Your task to perform on an android device: What is the recent news? Image 0: 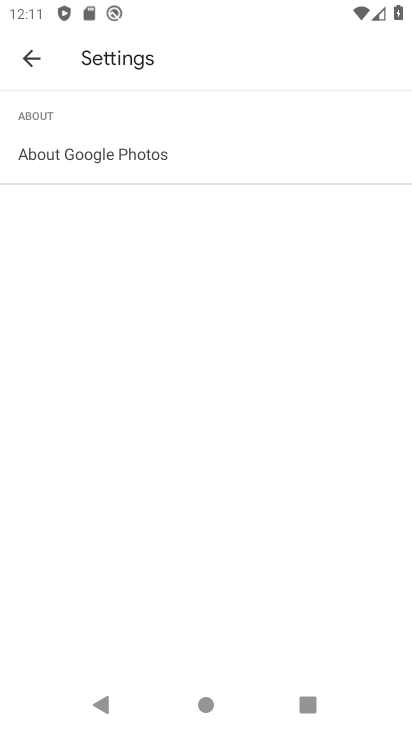
Step 0: press home button
Your task to perform on an android device: What is the recent news? Image 1: 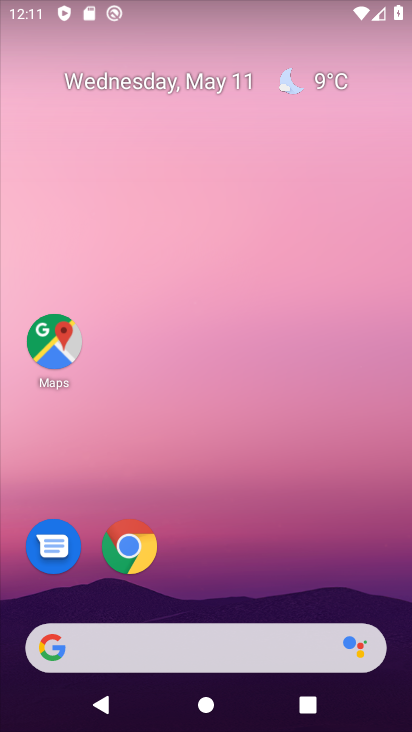
Step 1: drag from (283, 656) to (294, 80)
Your task to perform on an android device: What is the recent news? Image 2: 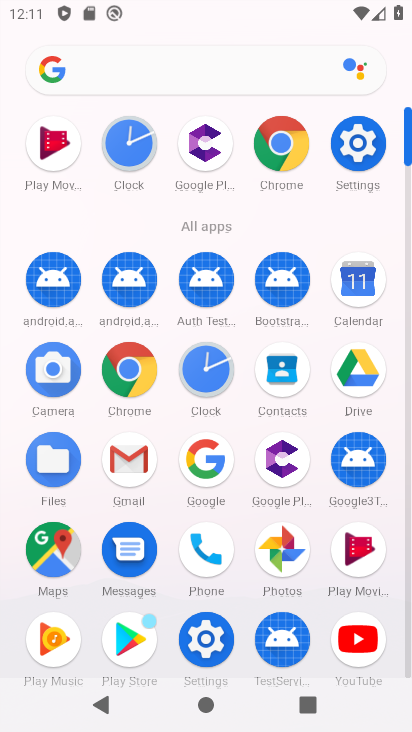
Step 2: click (131, 376)
Your task to perform on an android device: What is the recent news? Image 3: 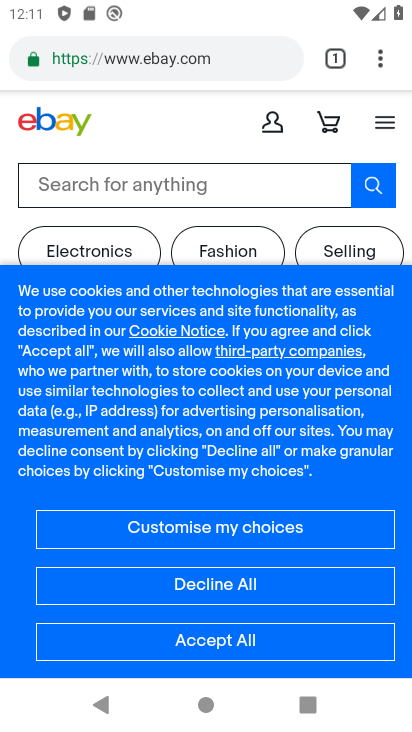
Step 3: click (285, 68)
Your task to perform on an android device: What is the recent news? Image 4: 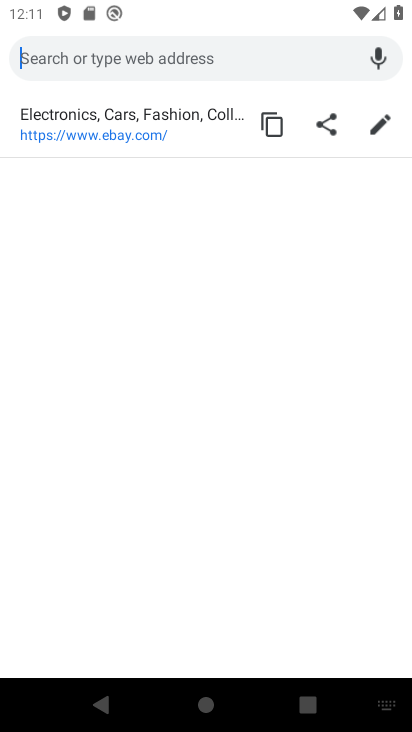
Step 4: type "recent news"
Your task to perform on an android device: What is the recent news? Image 5: 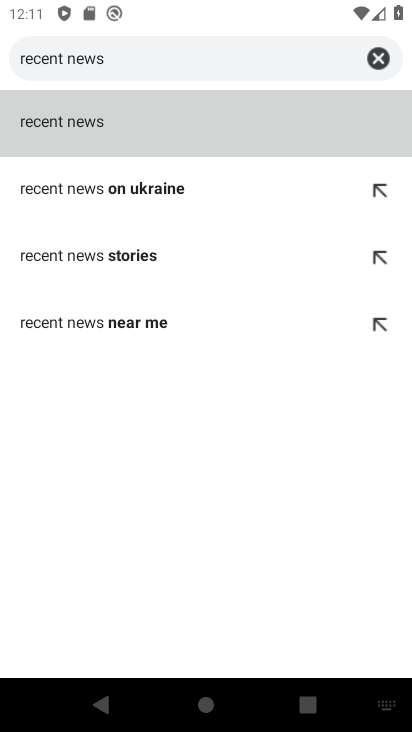
Step 5: click (239, 135)
Your task to perform on an android device: What is the recent news? Image 6: 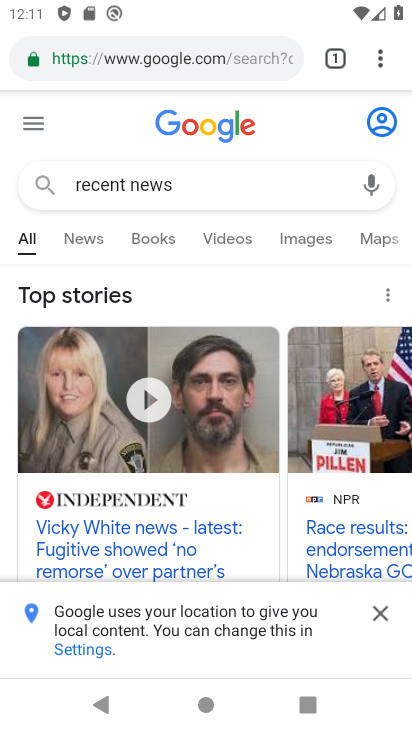
Step 6: task complete